Your task to perform on an android device: Search for usb-a to usb-b on bestbuy, select the first entry, and add it to the cart. Image 0: 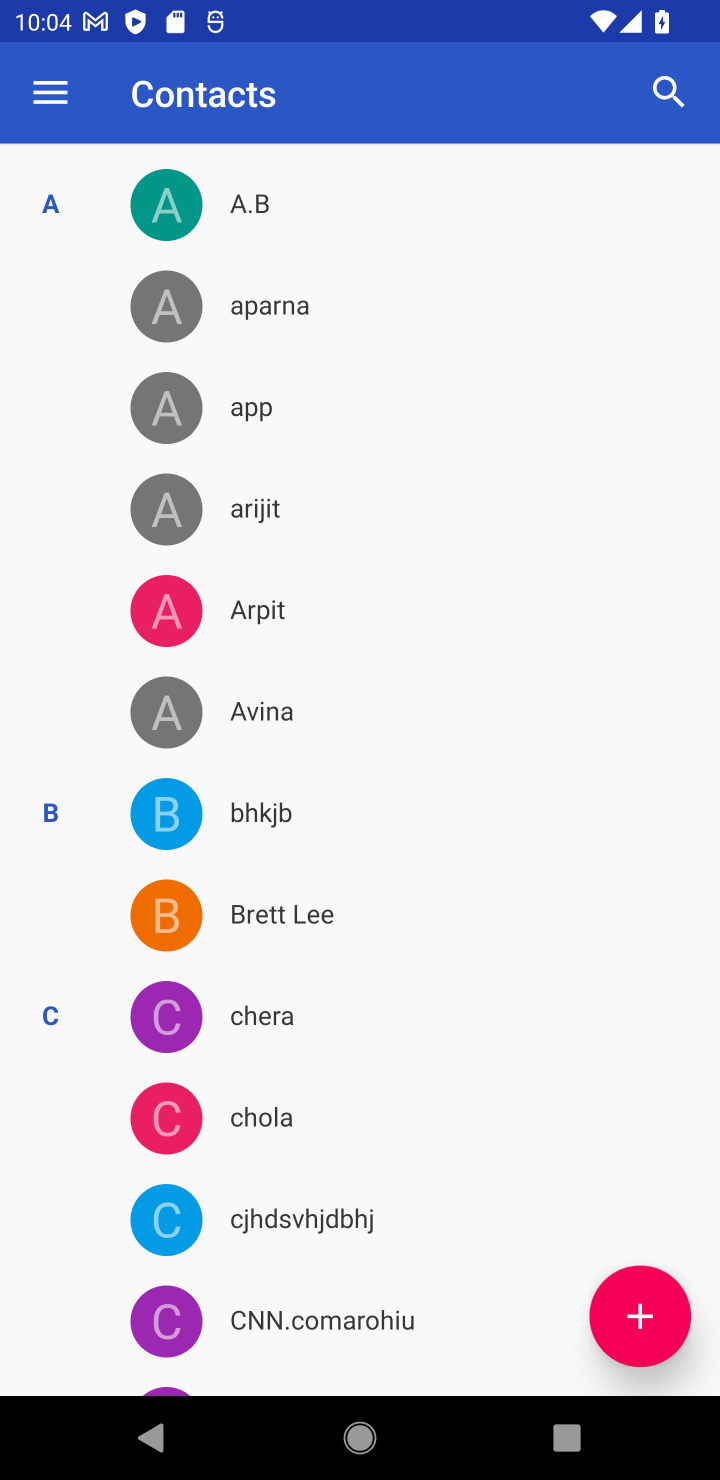
Step 0: press home button
Your task to perform on an android device: Search for usb-a to usb-b on bestbuy, select the first entry, and add it to the cart. Image 1: 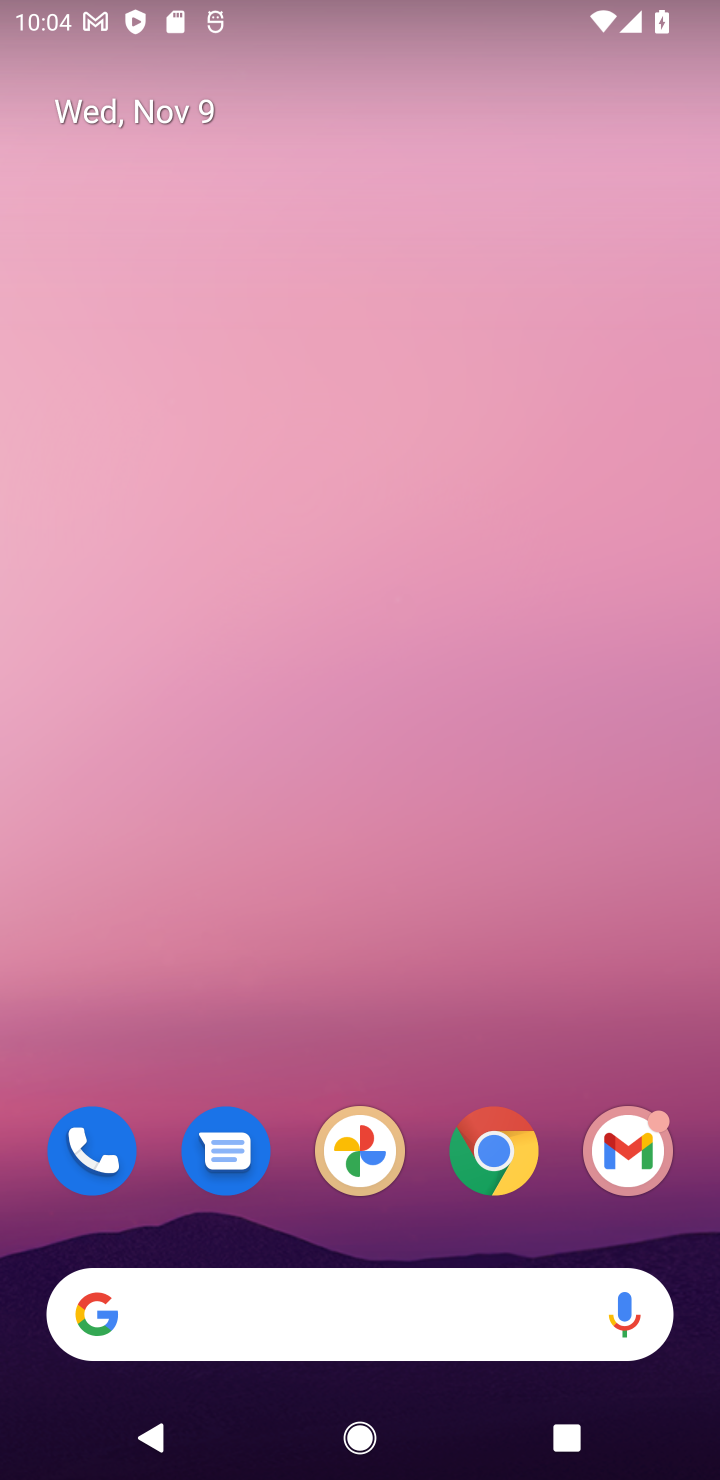
Step 1: click (508, 1164)
Your task to perform on an android device: Search for usb-a to usb-b on bestbuy, select the first entry, and add it to the cart. Image 2: 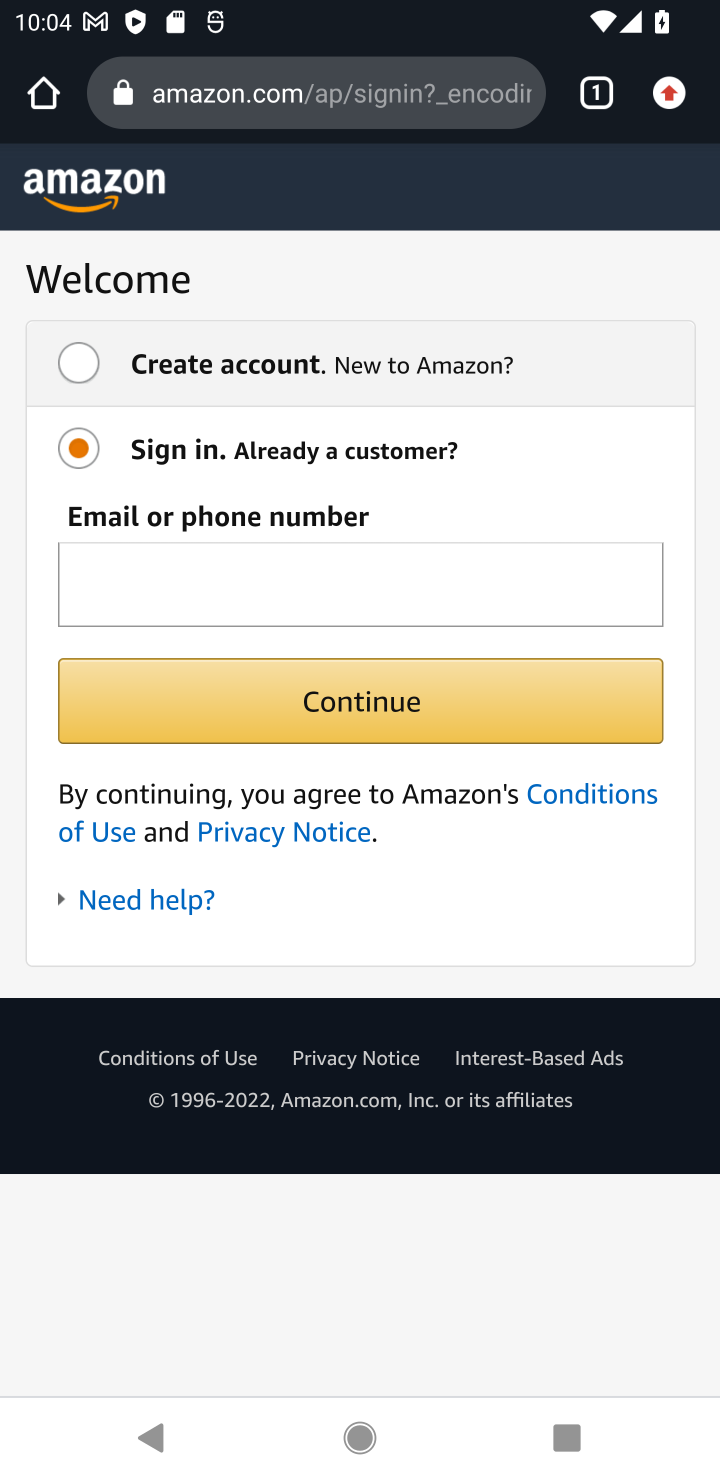
Step 2: click (345, 108)
Your task to perform on an android device: Search for usb-a to usb-b on bestbuy, select the first entry, and add it to the cart. Image 3: 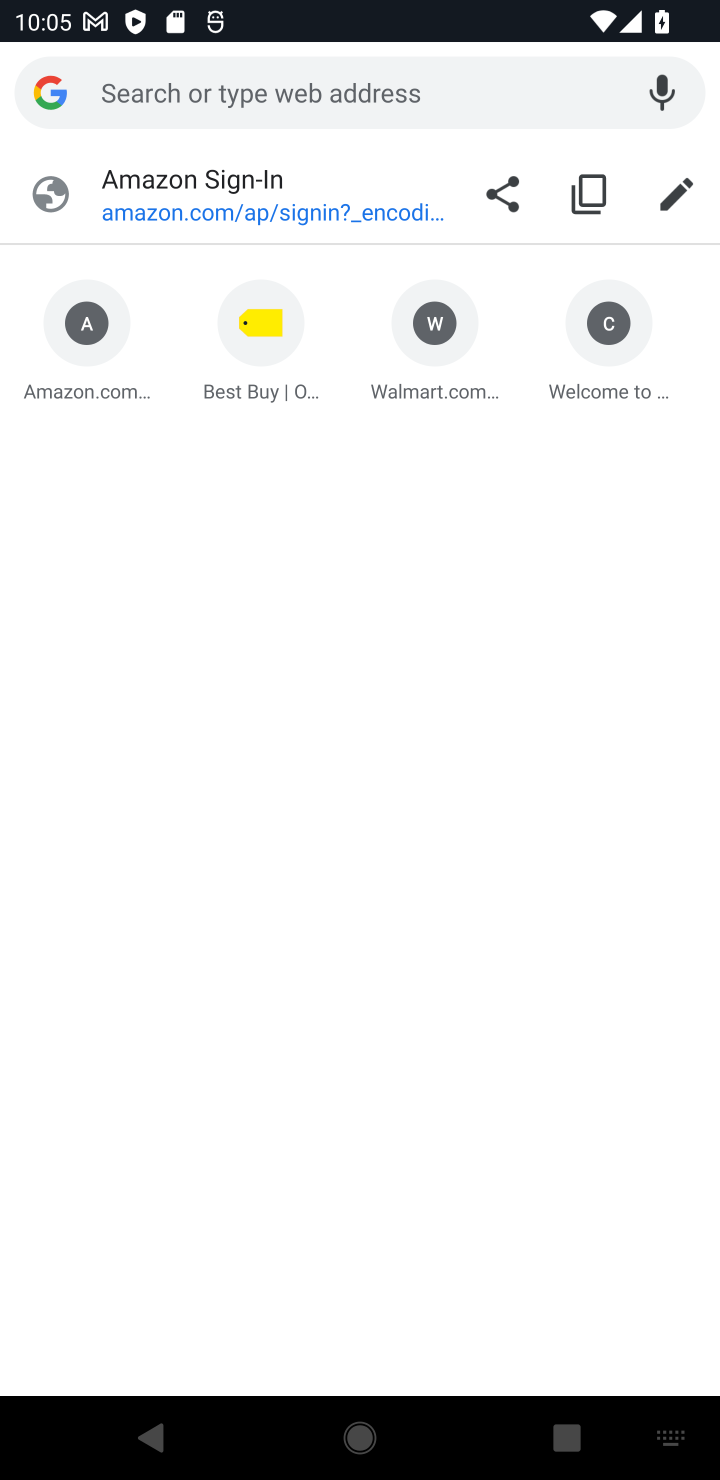
Step 3: press enter
Your task to perform on an android device: Search for usb-a to usb-b on bestbuy, select the first entry, and add it to the cart. Image 4: 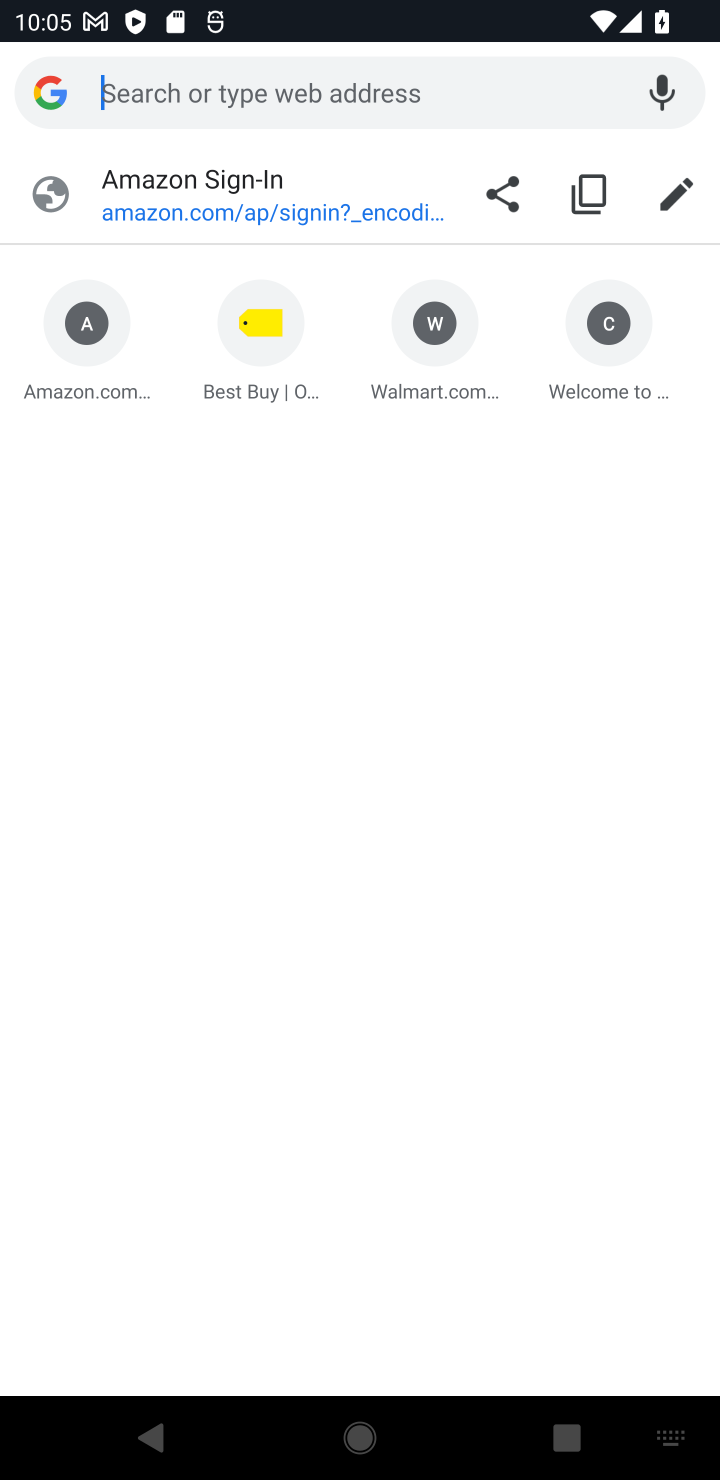
Step 4: type "bestbuy"
Your task to perform on an android device: Search for usb-a to usb-b on bestbuy, select the first entry, and add it to the cart. Image 5: 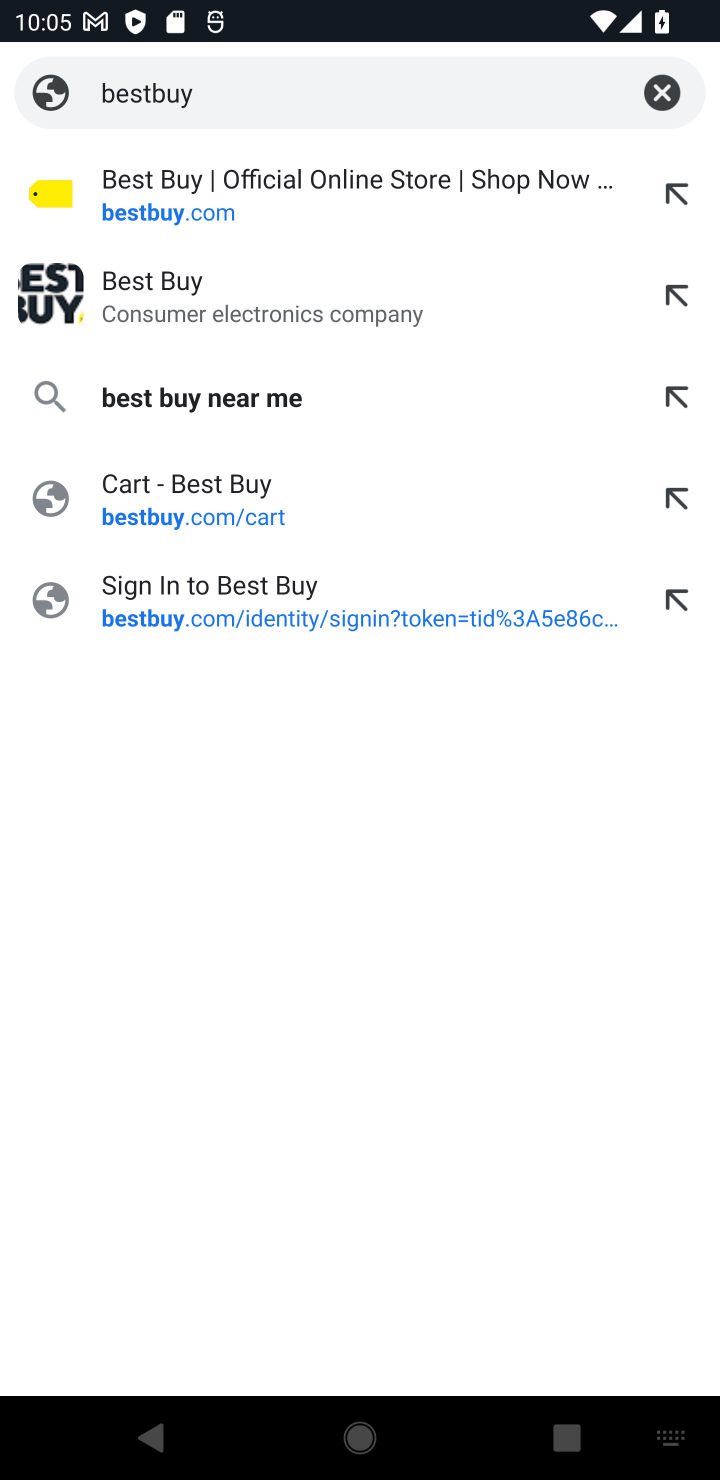
Step 5: click (279, 187)
Your task to perform on an android device: Search for usb-a to usb-b on bestbuy, select the first entry, and add it to the cart. Image 6: 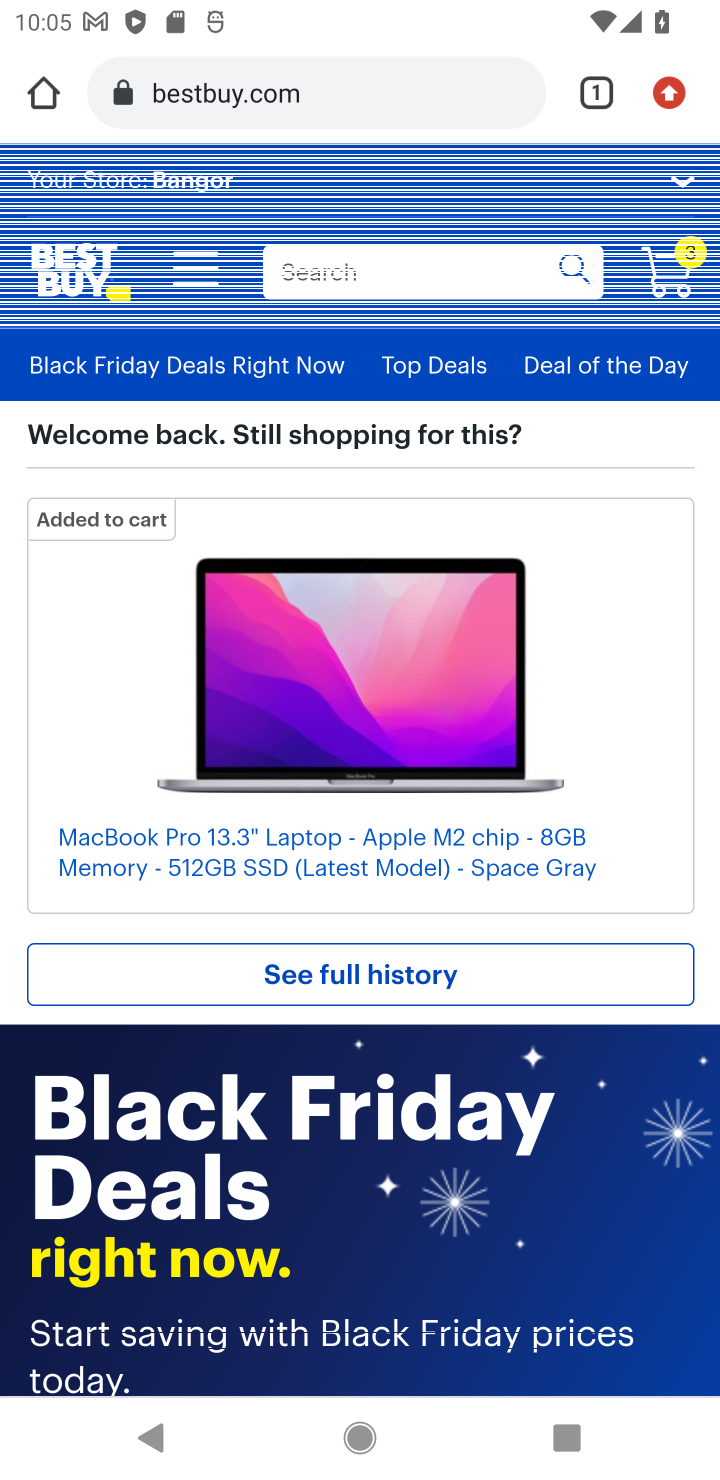
Step 6: click (439, 280)
Your task to perform on an android device: Search for usb-a to usb-b on bestbuy, select the first entry, and add it to the cart. Image 7: 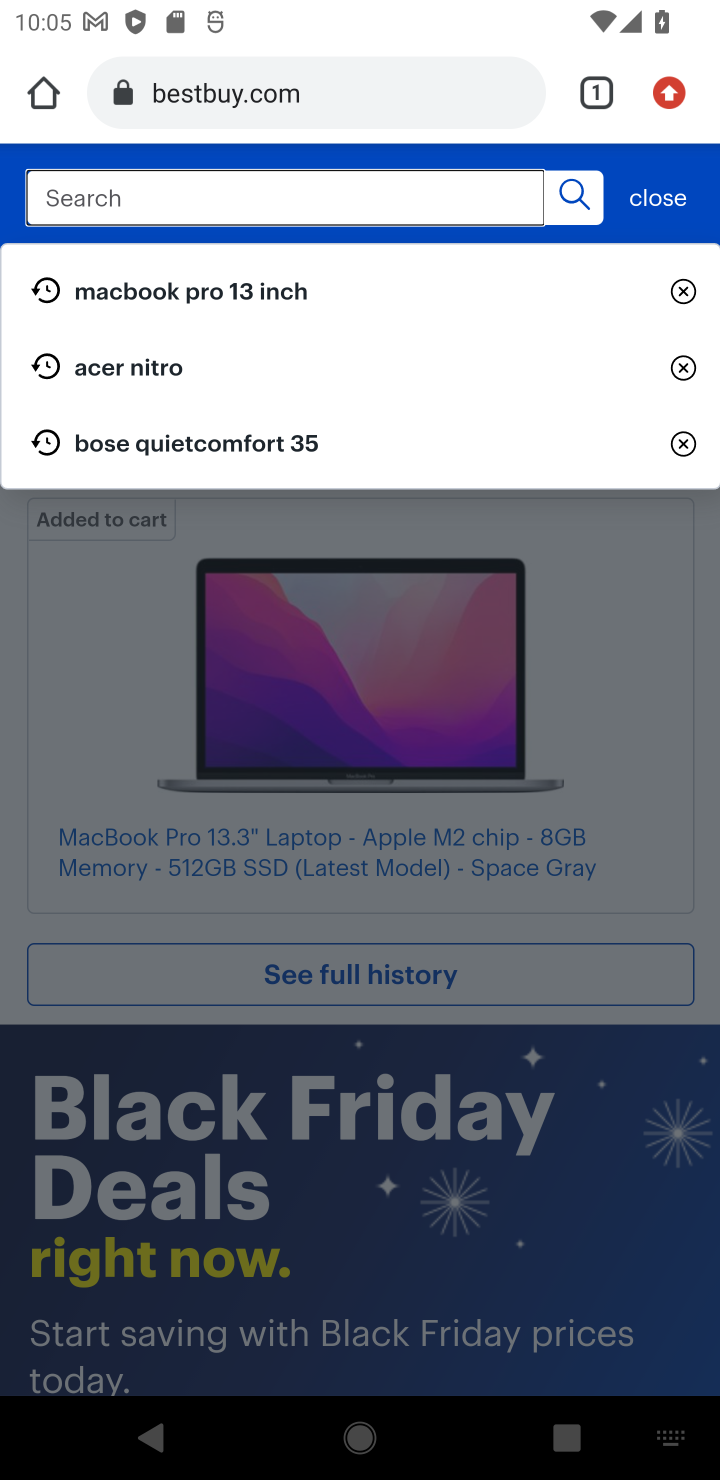
Step 7: type "usb-a to usb-b "
Your task to perform on an android device: Search for usb-a to usb-b on bestbuy, select the first entry, and add it to the cart. Image 8: 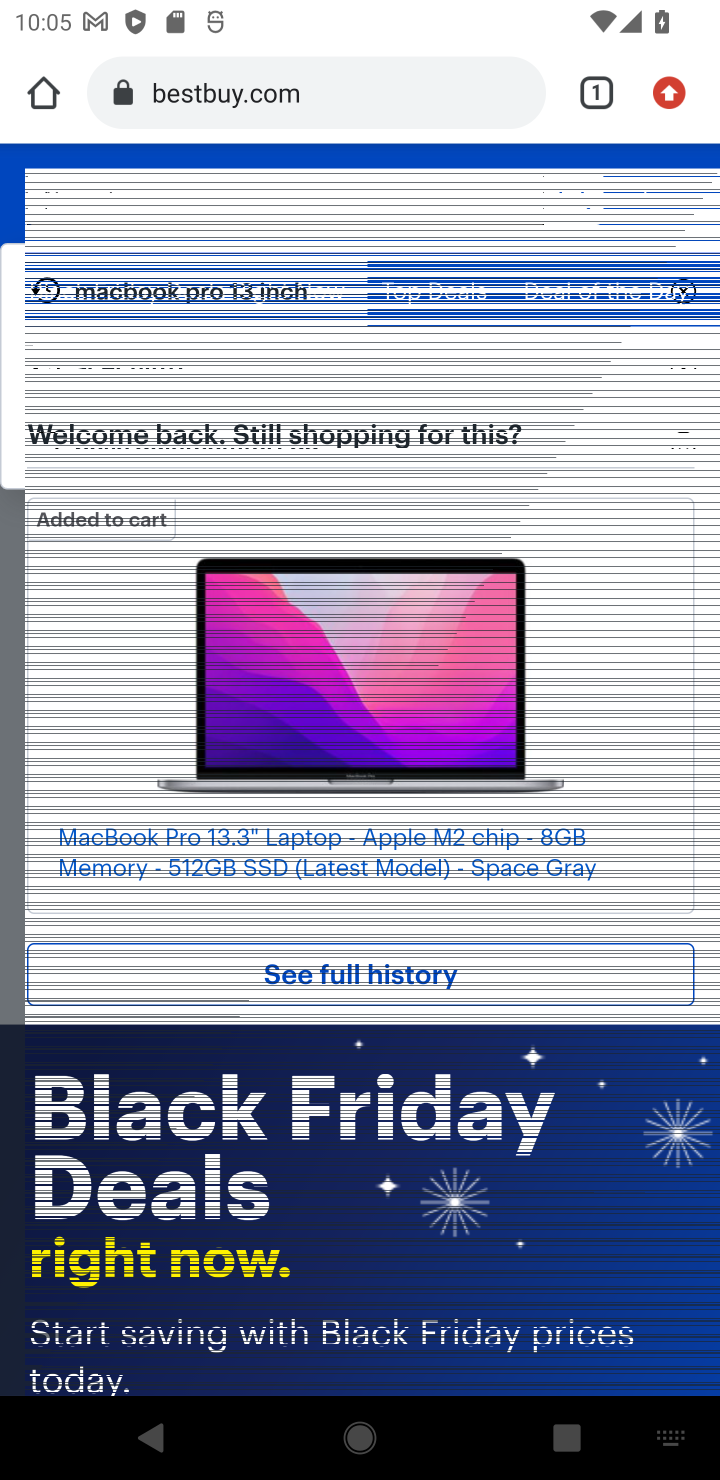
Step 8: press enter
Your task to perform on an android device: Search for usb-a to usb-b on bestbuy, select the first entry, and add it to the cart. Image 9: 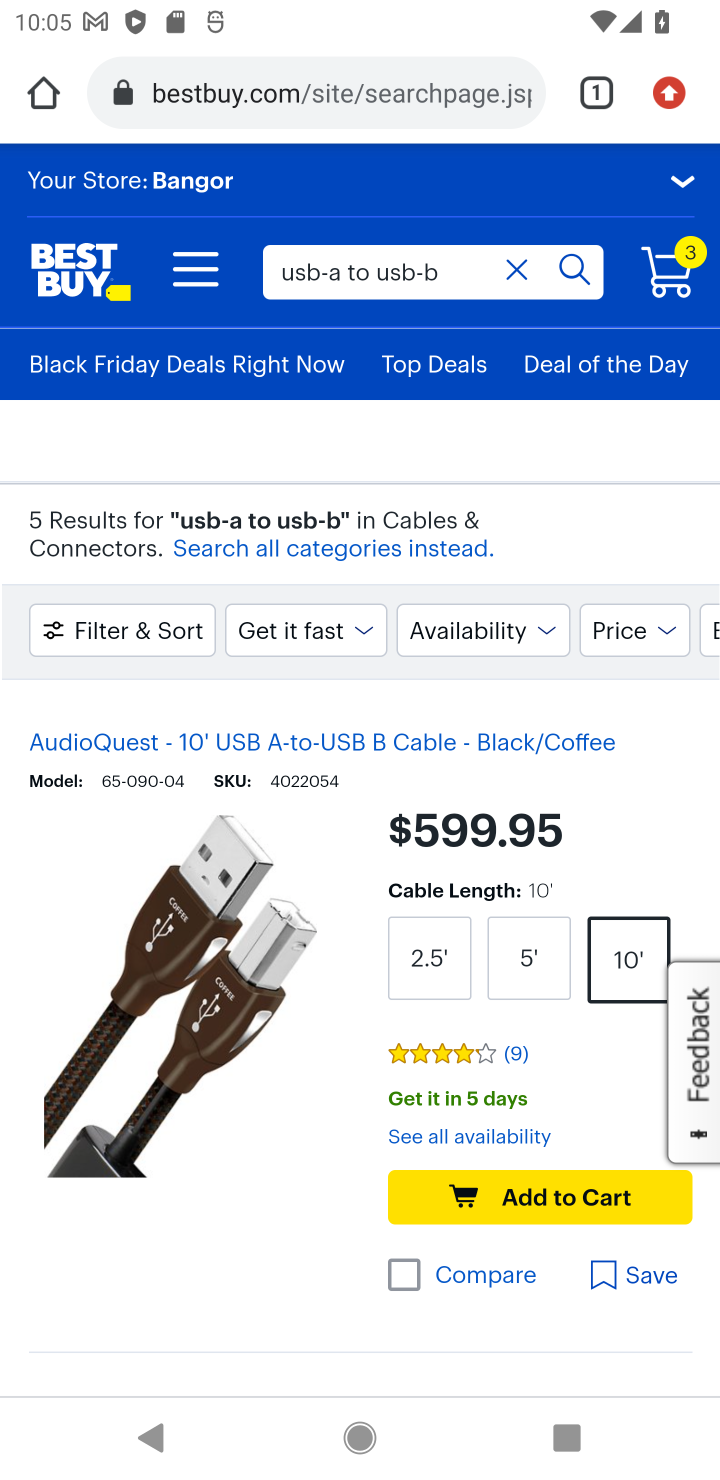
Step 9: click (130, 935)
Your task to perform on an android device: Search for usb-a to usb-b on bestbuy, select the first entry, and add it to the cart. Image 10: 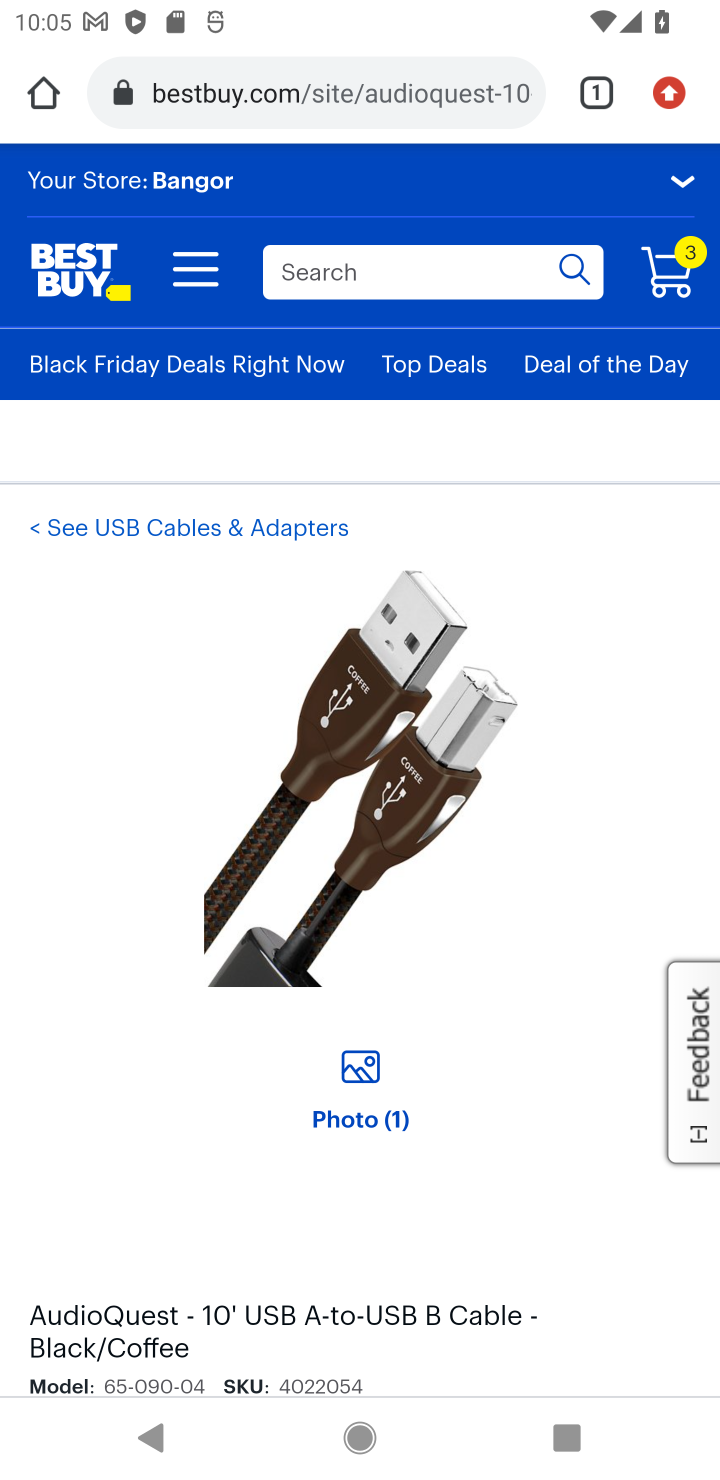
Step 10: drag from (449, 698) to (438, 336)
Your task to perform on an android device: Search for usb-a to usb-b on bestbuy, select the first entry, and add it to the cart. Image 11: 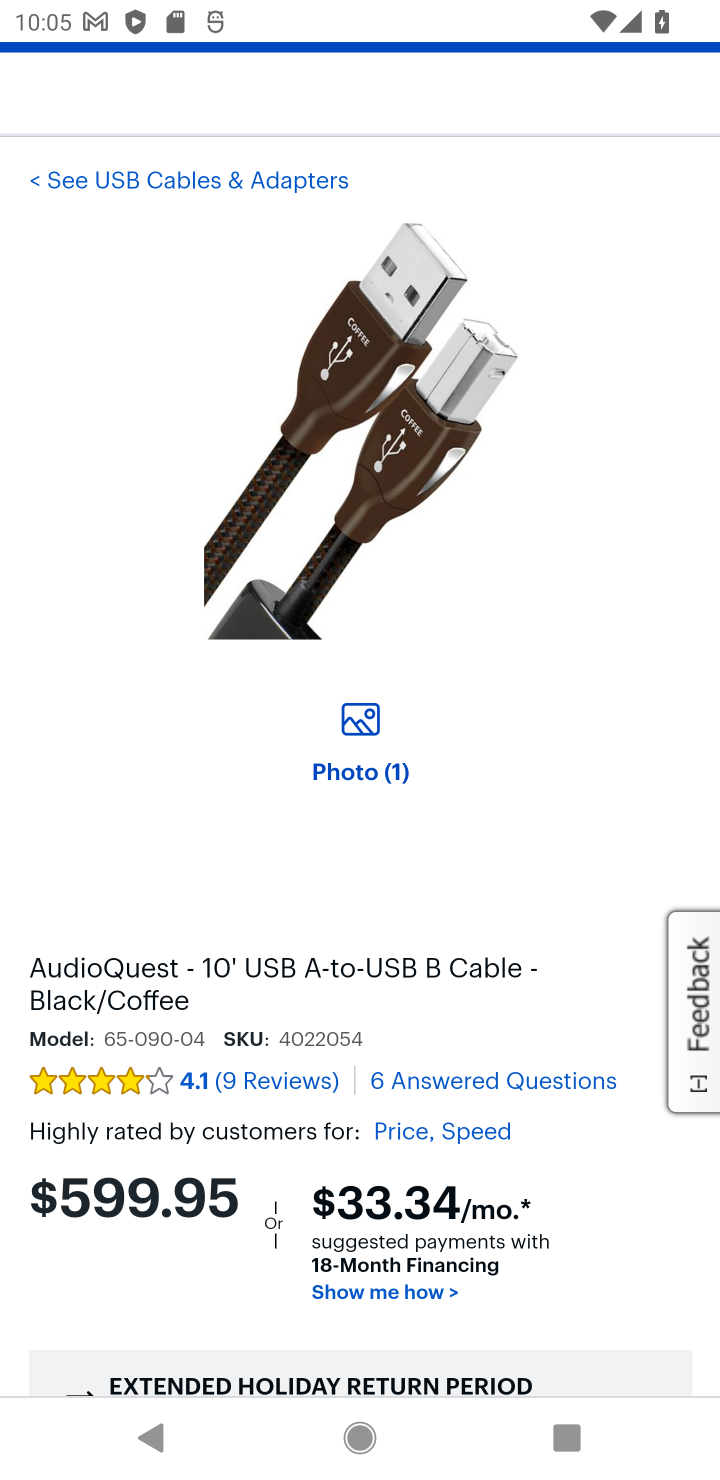
Step 11: drag from (643, 1176) to (561, 320)
Your task to perform on an android device: Search for usb-a to usb-b on bestbuy, select the first entry, and add it to the cart. Image 12: 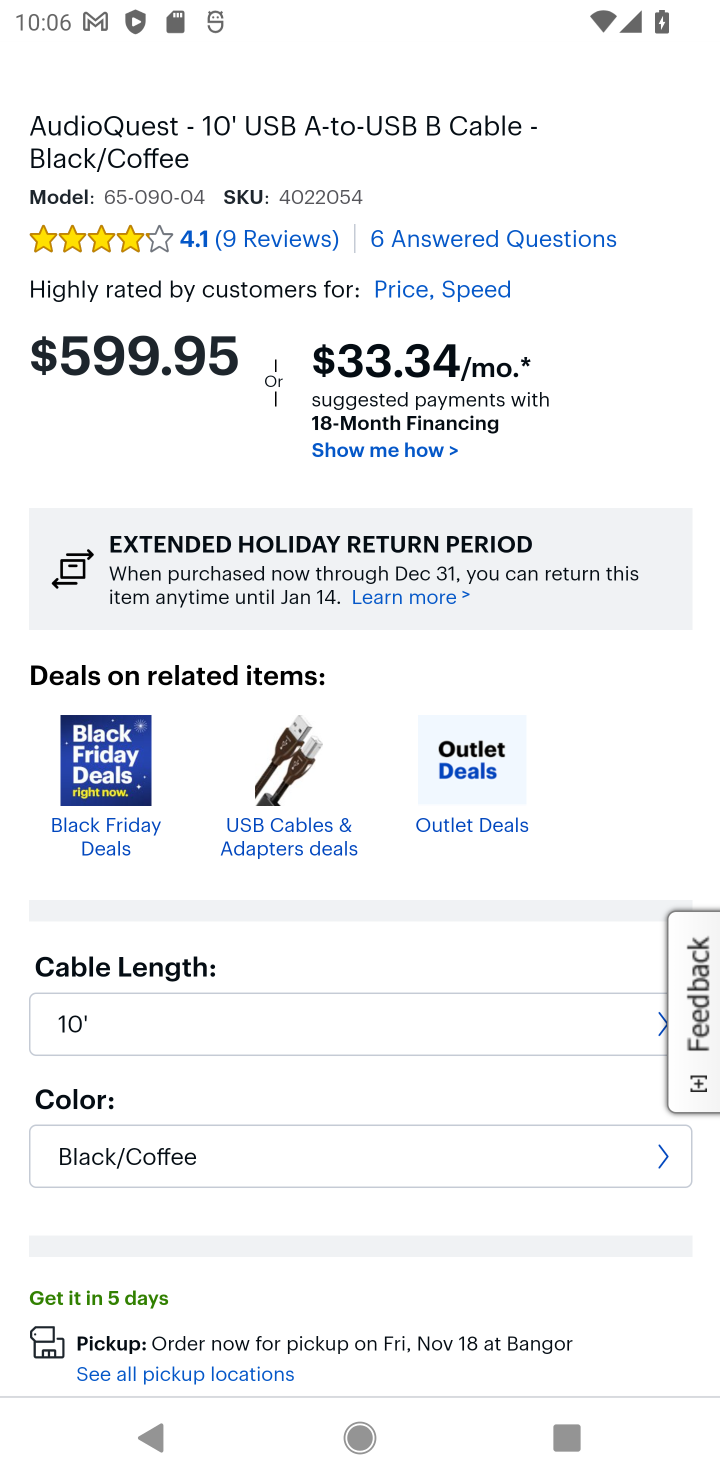
Step 12: drag from (678, 1282) to (513, 439)
Your task to perform on an android device: Search for usb-a to usb-b on bestbuy, select the first entry, and add it to the cart. Image 13: 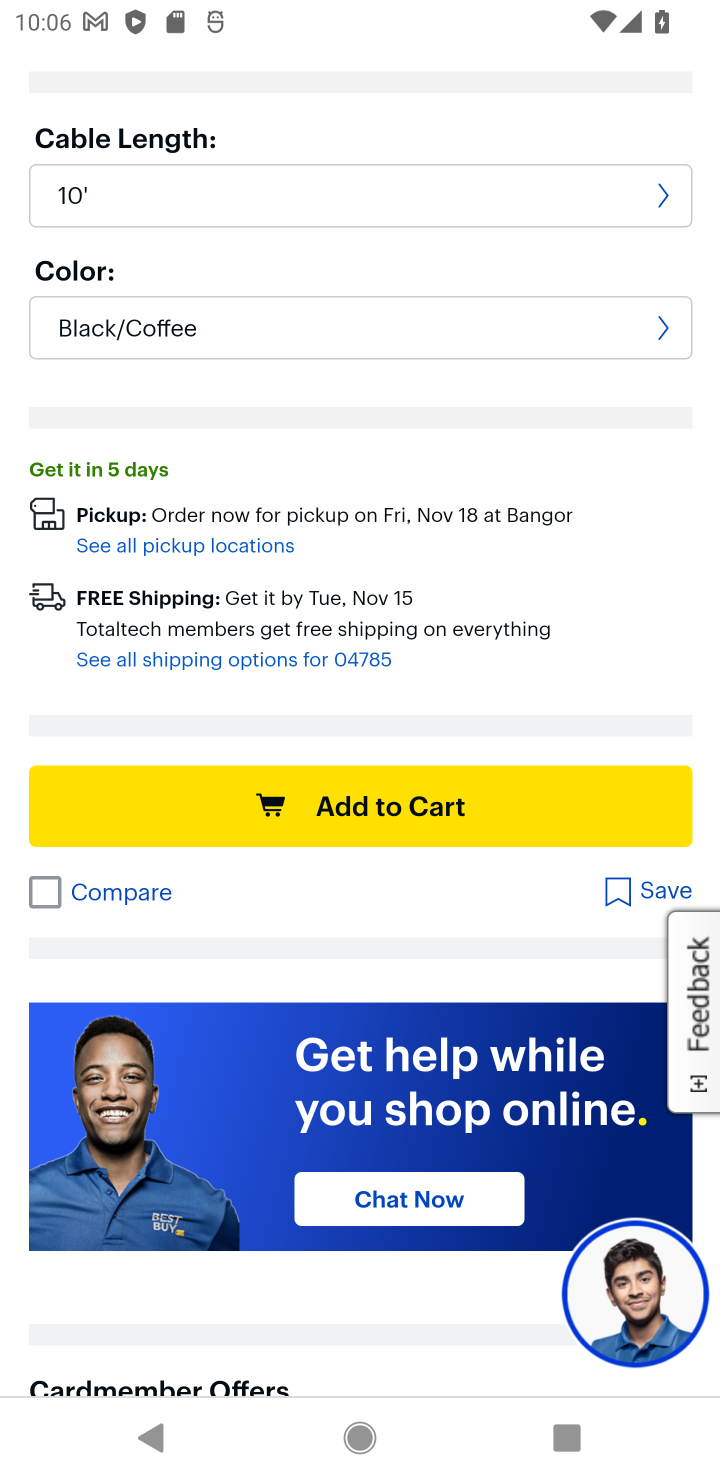
Step 13: click (410, 792)
Your task to perform on an android device: Search for usb-a to usb-b on bestbuy, select the first entry, and add it to the cart. Image 14: 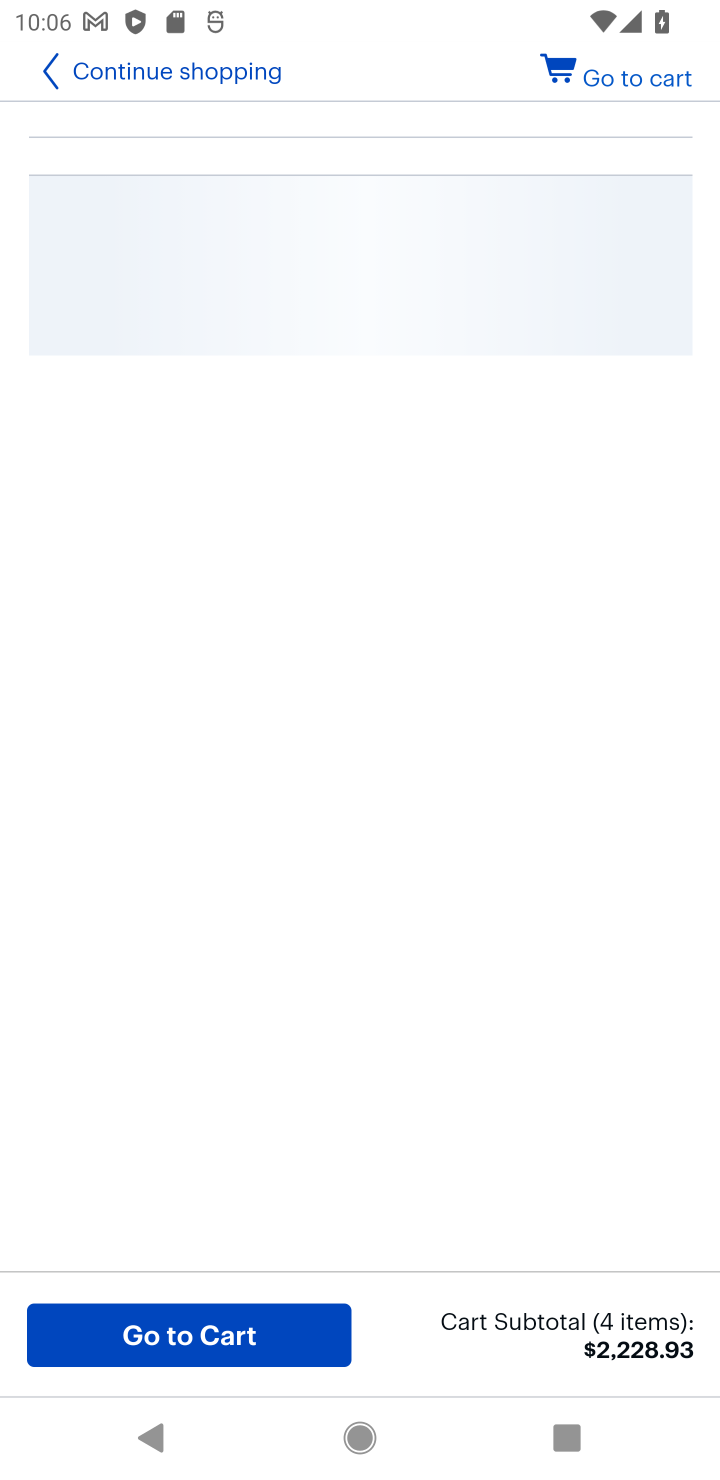
Step 14: task complete